Your task to perform on an android device: refresh tabs in the chrome app Image 0: 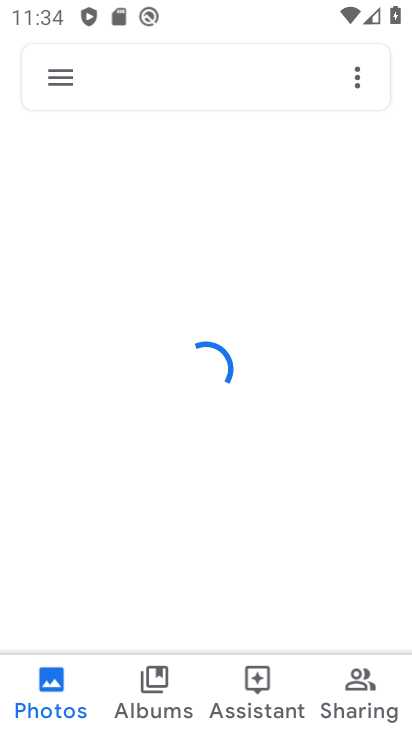
Step 0: press home button
Your task to perform on an android device: refresh tabs in the chrome app Image 1: 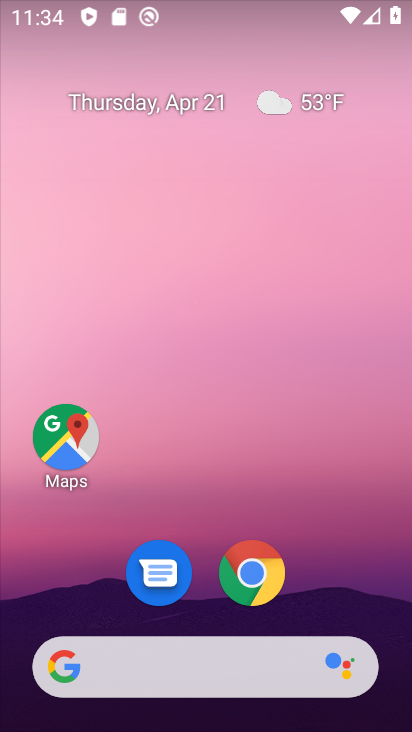
Step 1: drag from (160, 666) to (308, 183)
Your task to perform on an android device: refresh tabs in the chrome app Image 2: 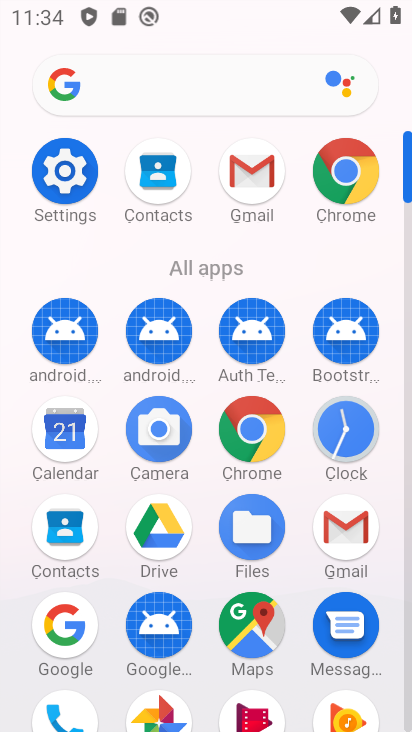
Step 2: click (353, 193)
Your task to perform on an android device: refresh tabs in the chrome app Image 3: 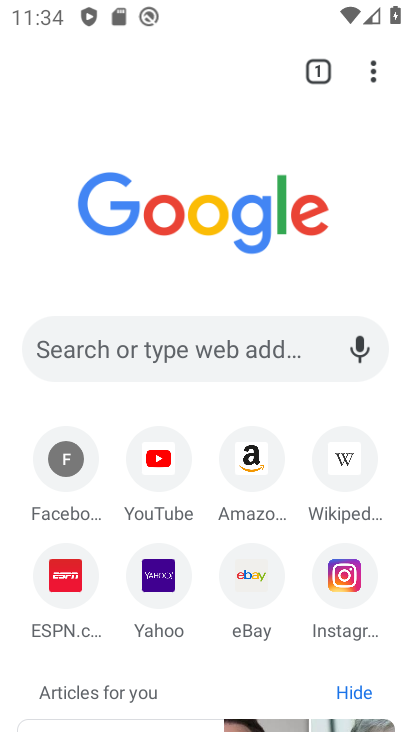
Step 3: click (372, 76)
Your task to perform on an android device: refresh tabs in the chrome app Image 4: 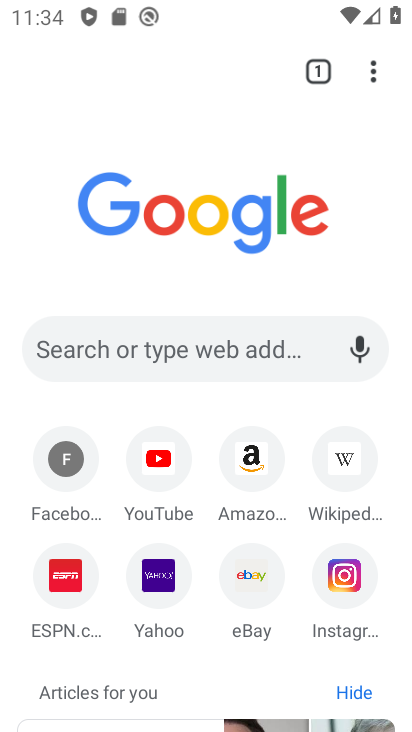
Step 4: click (369, 74)
Your task to perform on an android device: refresh tabs in the chrome app Image 5: 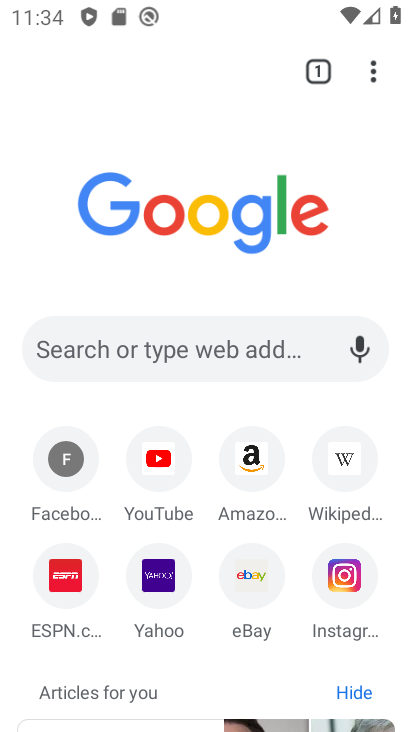
Step 5: task complete